Your task to perform on an android device: check data usage Image 0: 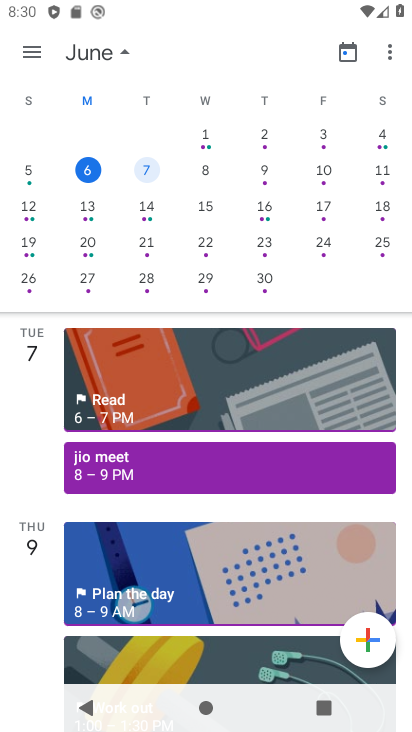
Step 0: drag from (171, 4) to (180, 618)
Your task to perform on an android device: check data usage Image 1: 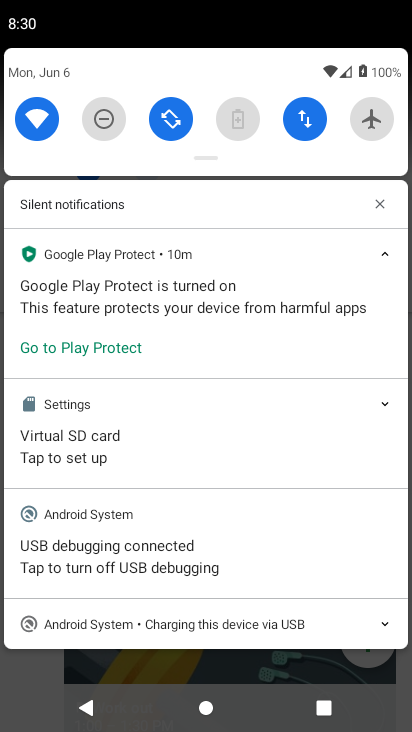
Step 1: click (300, 113)
Your task to perform on an android device: check data usage Image 2: 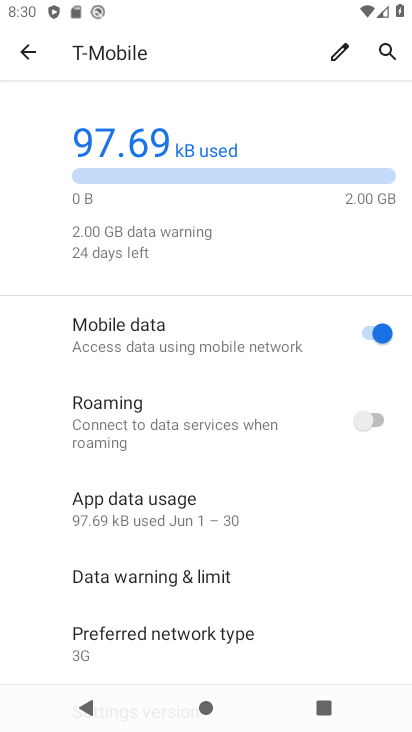
Step 2: task complete